Your task to perform on an android device: search for starred emails in the gmail app Image 0: 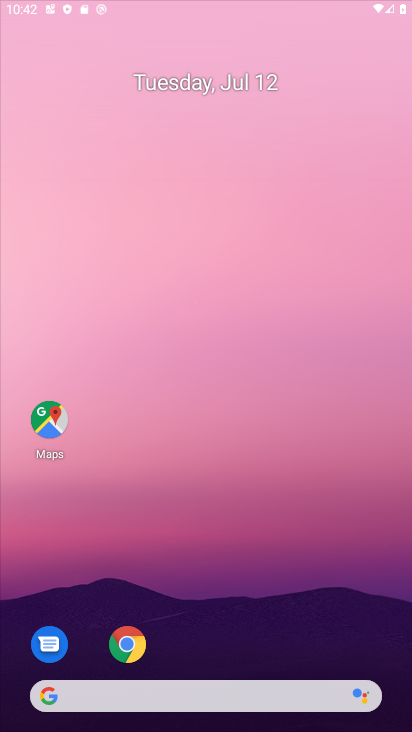
Step 0: press home button
Your task to perform on an android device: search for starred emails in the gmail app Image 1: 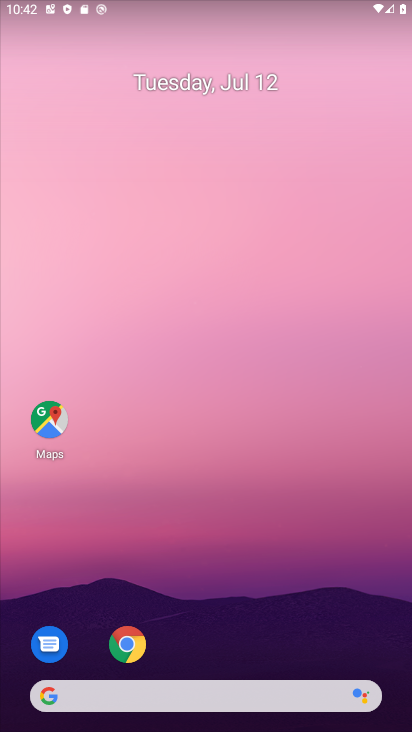
Step 1: drag from (222, 652) to (287, 176)
Your task to perform on an android device: search for starred emails in the gmail app Image 2: 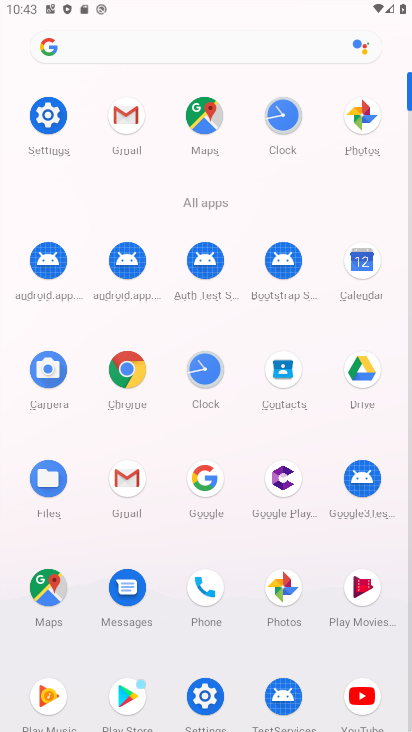
Step 2: click (127, 112)
Your task to perform on an android device: search for starred emails in the gmail app Image 3: 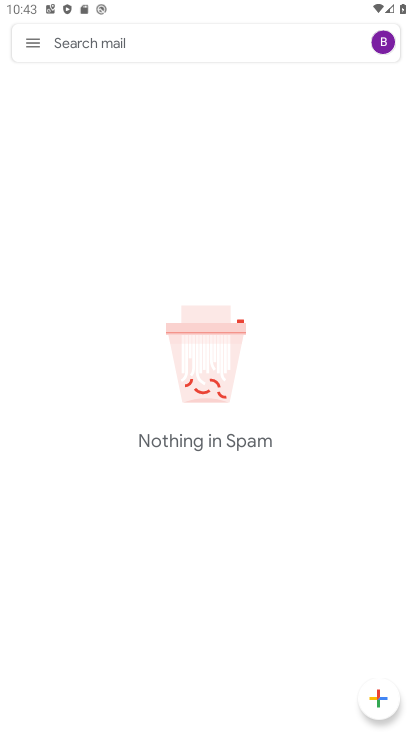
Step 3: click (39, 39)
Your task to perform on an android device: search for starred emails in the gmail app Image 4: 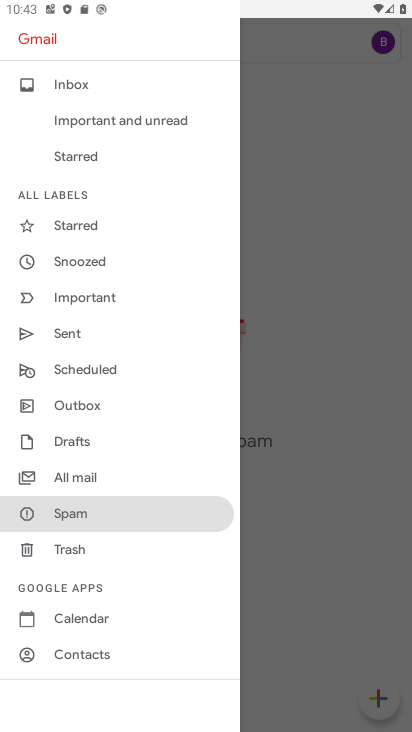
Step 4: click (89, 153)
Your task to perform on an android device: search for starred emails in the gmail app Image 5: 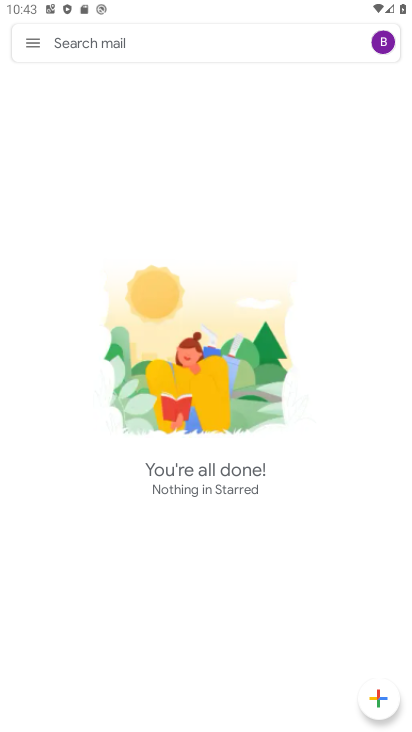
Step 5: task complete